Your task to perform on an android device: What's the weather going to be tomorrow? Image 0: 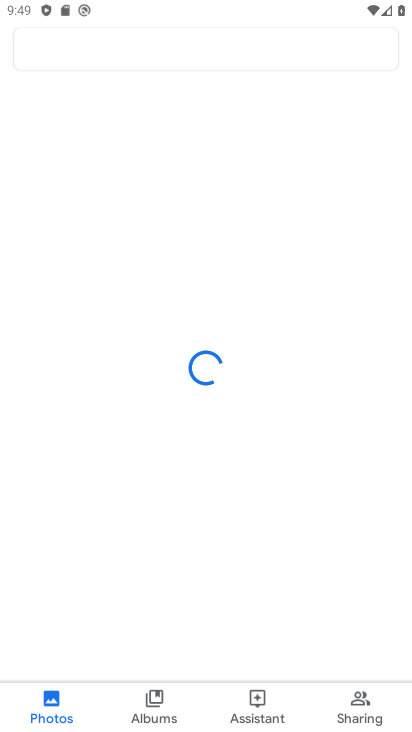
Step 0: press home button
Your task to perform on an android device: What's the weather going to be tomorrow? Image 1: 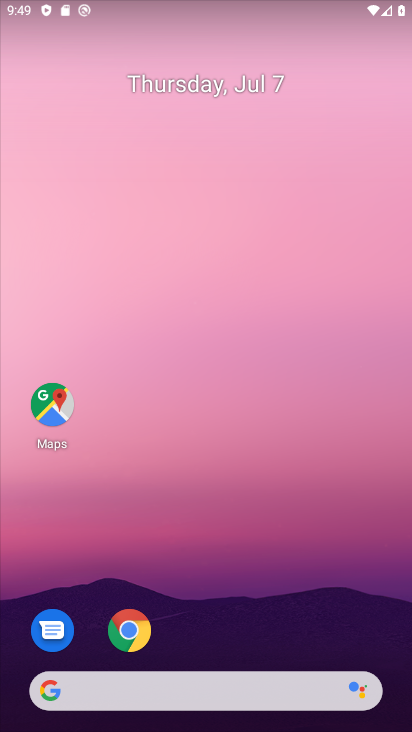
Step 1: click (171, 692)
Your task to perform on an android device: What's the weather going to be tomorrow? Image 2: 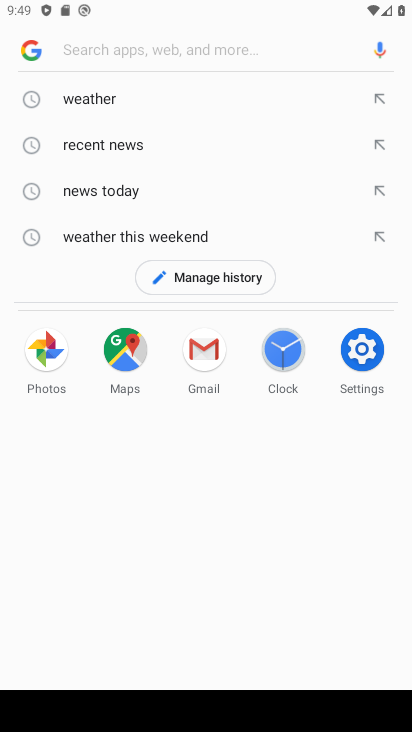
Step 2: click (114, 96)
Your task to perform on an android device: What's the weather going to be tomorrow? Image 3: 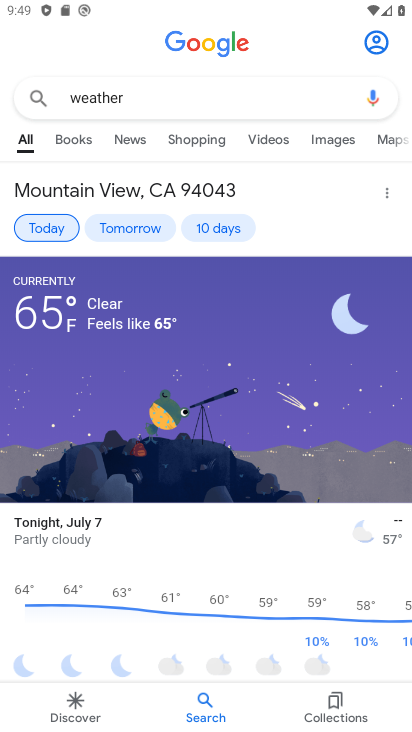
Step 3: click (138, 227)
Your task to perform on an android device: What's the weather going to be tomorrow? Image 4: 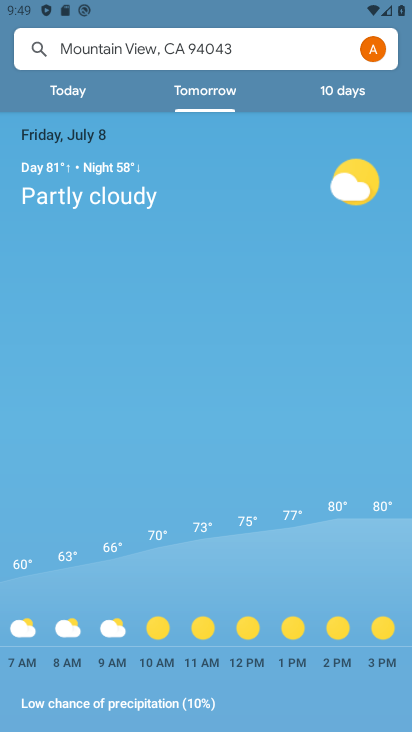
Step 4: drag from (349, 627) to (1, 627)
Your task to perform on an android device: What's the weather going to be tomorrow? Image 5: 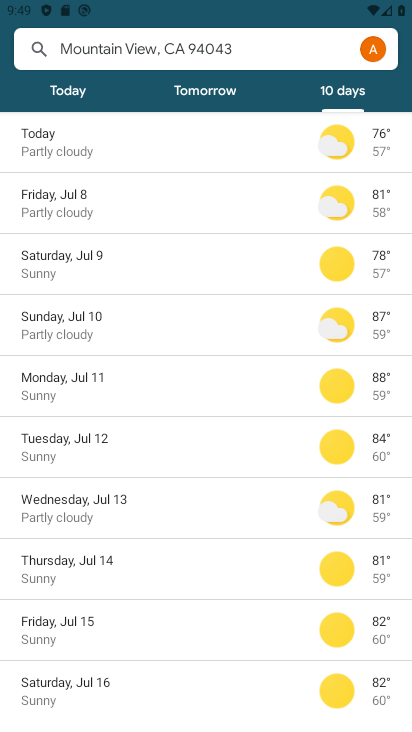
Step 5: click (194, 96)
Your task to perform on an android device: What's the weather going to be tomorrow? Image 6: 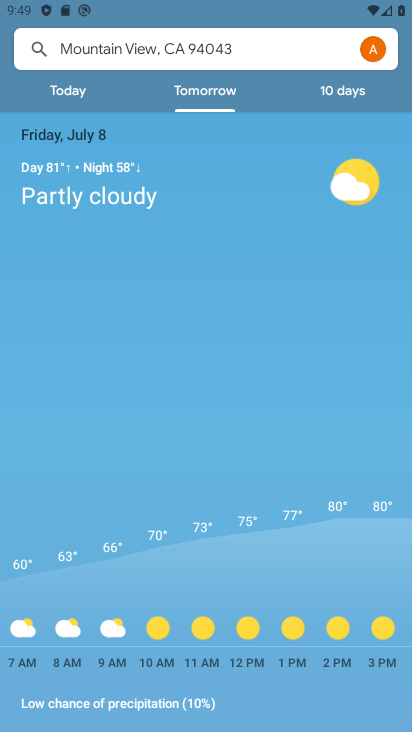
Step 6: task complete